Your task to perform on an android device: Open Chrome and go to the settings page Image 0: 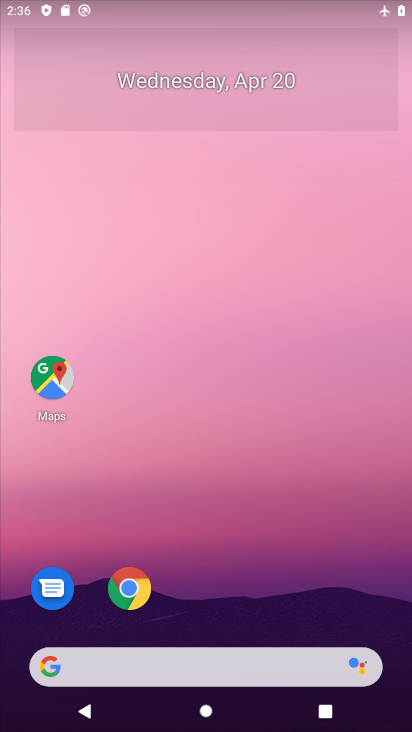
Step 0: click (126, 591)
Your task to perform on an android device: Open Chrome and go to the settings page Image 1: 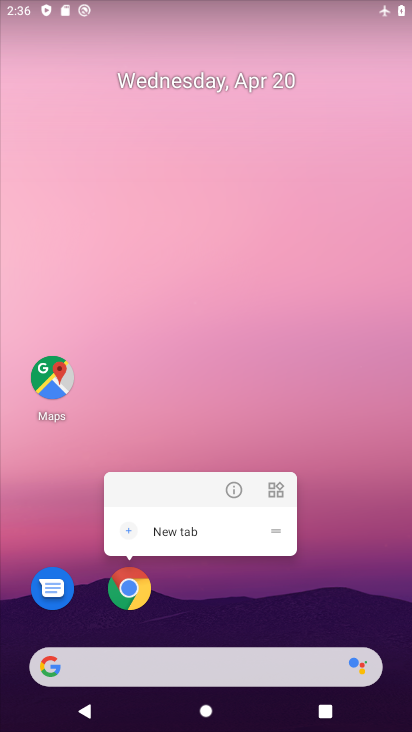
Step 1: click (124, 591)
Your task to perform on an android device: Open Chrome and go to the settings page Image 2: 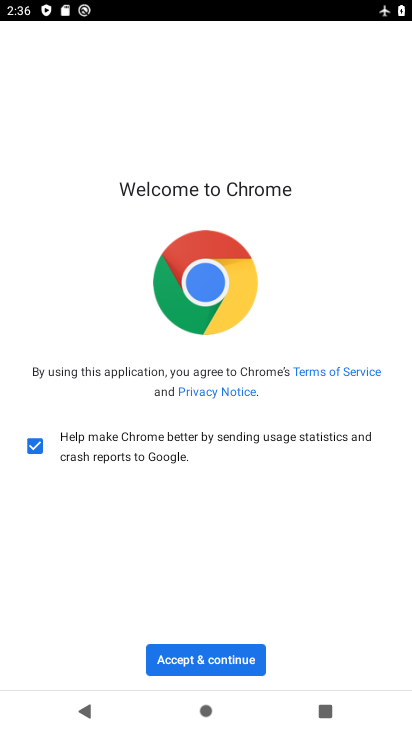
Step 2: click (215, 653)
Your task to perform on an android device: Open Chrome and go to the settings page Image 3: 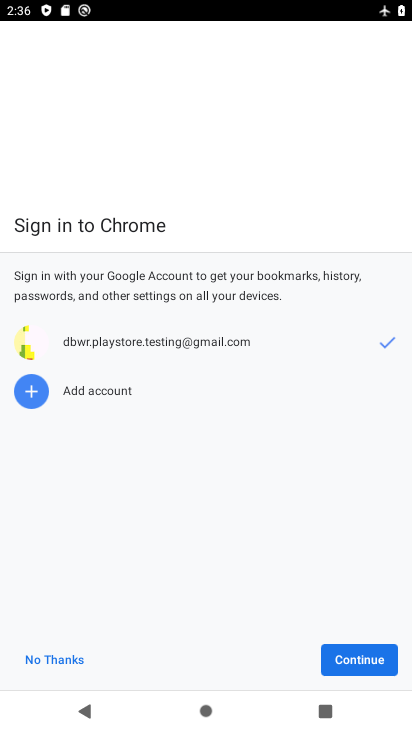
Step 3: click (331, 657)
Your task to perform on an android device: Open Chrome and go to the settings page Image 4: 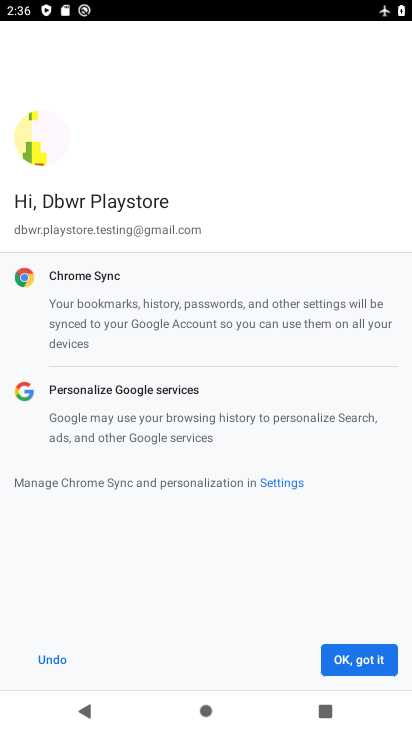
Step 4: click (331, 657)
Your task to perform on an android device: Open Chrome and go to the settings page Image 5: 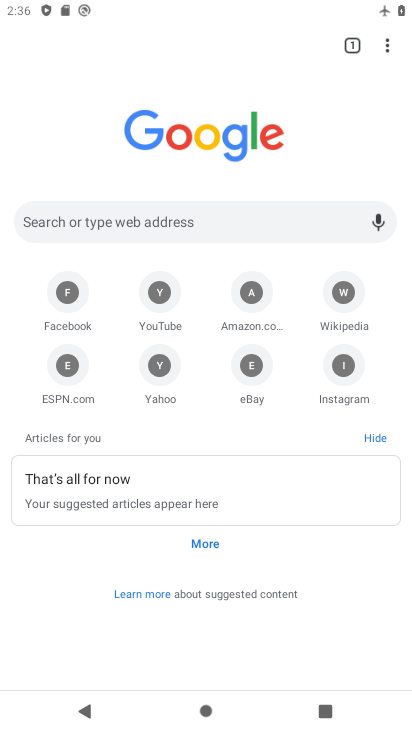
Step 5: click (386, 43)
Your task to perform on an android device: Open Chrome and go to the settings page Image 6: 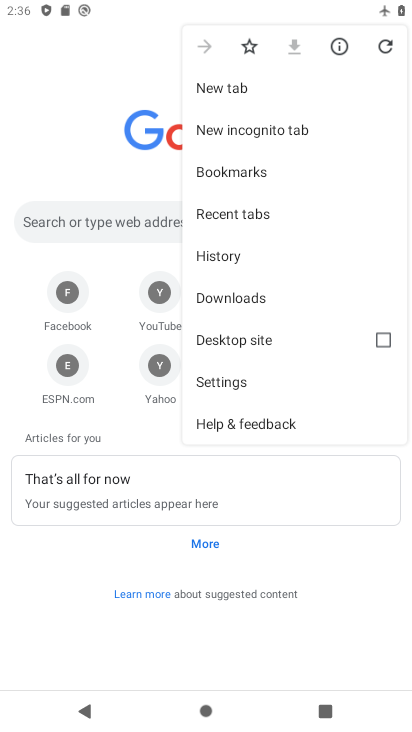
Step 6: click (252, 382)
Your task to perform on an android device: Open Chrome and go to the settings page Image 7: 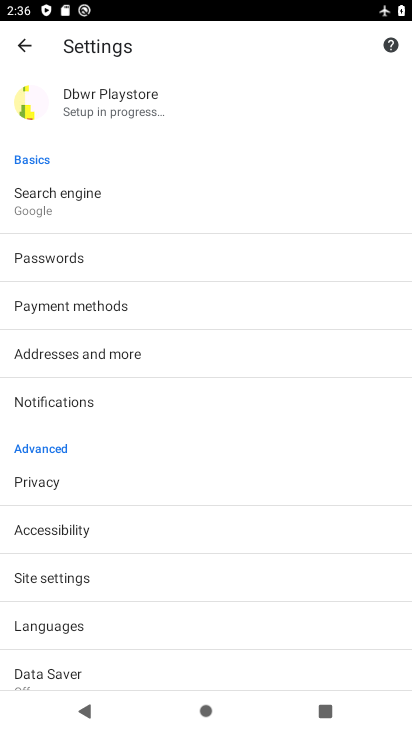
Step 7: task complete